Your task to perform on an android device: Search for sushi restaurants on Maps Image 0: 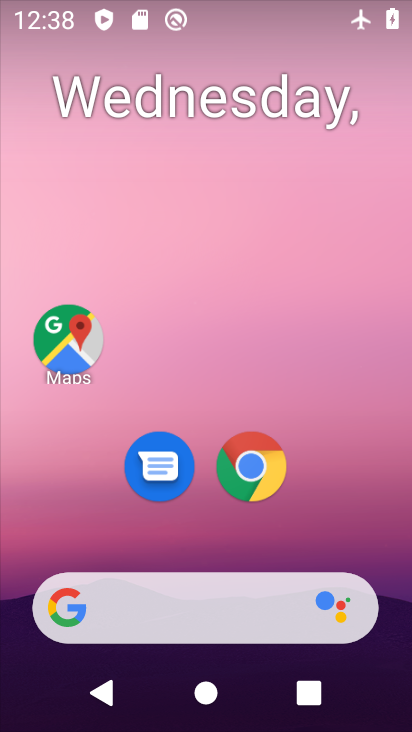
Step 0: click (61, 350)
Your task to perform on an android device: Search for sushi restaurants on Maps Image 1: 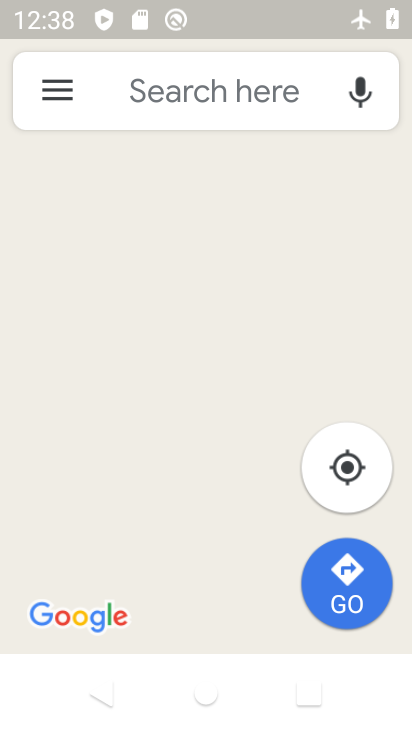
Step 1: click (209, 80)
Your task to perform on an android device: Search for sushi restaurants on Maps Image 2: 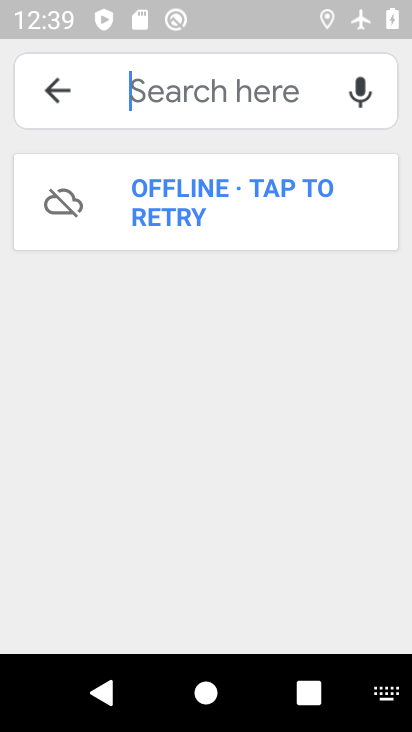
Step 2: press home button
Your task to perform on an android device: Search for sushi restaurants on Maps Image 3: 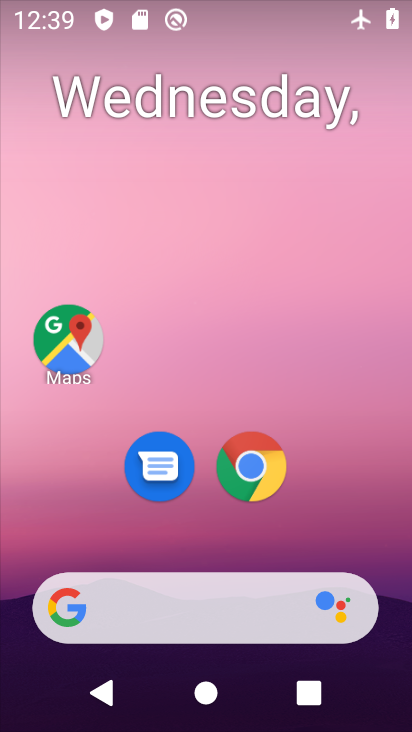
Step 3: drag from (257, 11) to (249, 401)
Your task to perform on an android device: Search for sushi restaurants on Maps Image 4: 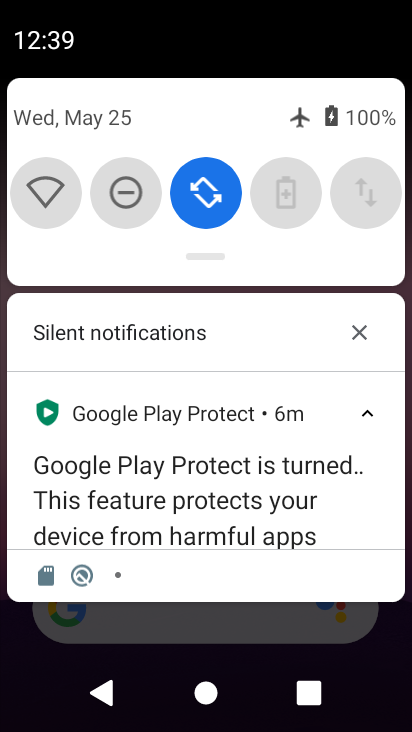
Step 4: drag from (358, 200) to (41, 205)
Your task to perform on an android device: Search for sushi restaurants on Maps Image 5: 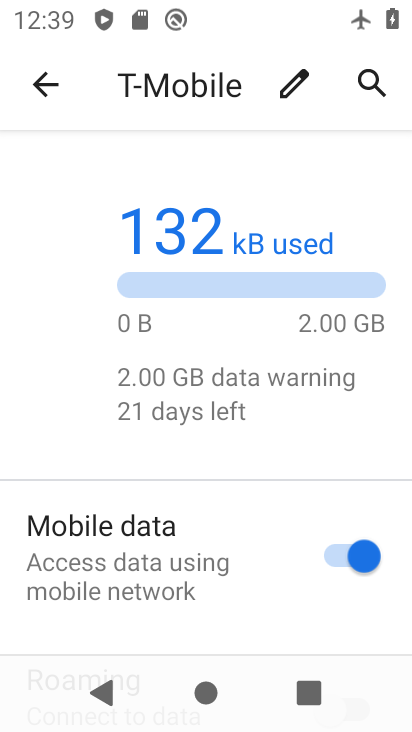
Step 5: press back button
Your task to perform on an android device: Search for sushi restaurants on Maps Image 6: 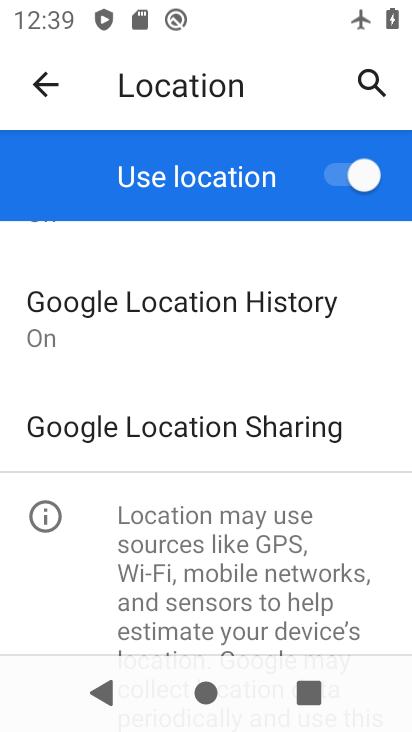
Step 6: press home button
Your task to perform on an android device: Search for sushi restaurants on Maps Image 7: 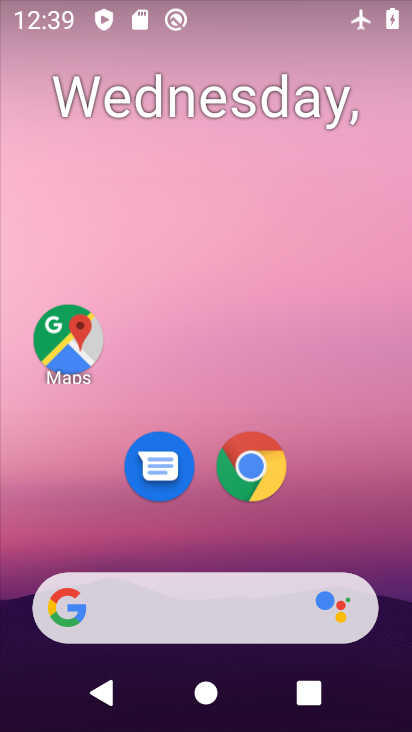
Step 7: drag from (267, 9) to (206, 685)
Your task to perform on an android device: Search for sushi restaurants on Maps Image 8: 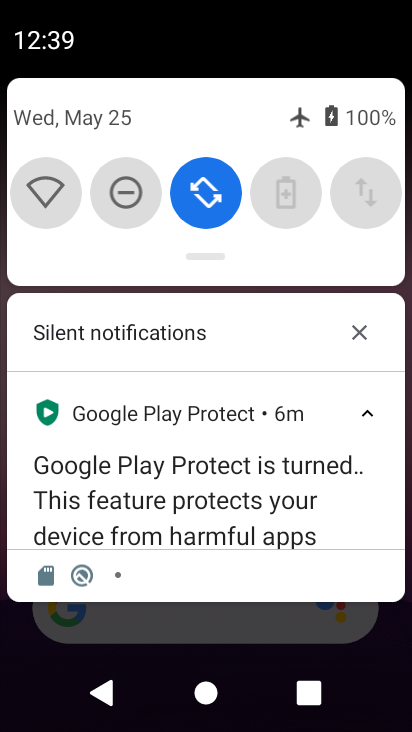
Step 8: drag from (334, 194) to (31, 211)
Your task to perform on an android device: Search for sushi restaurants on Maps Image 9: 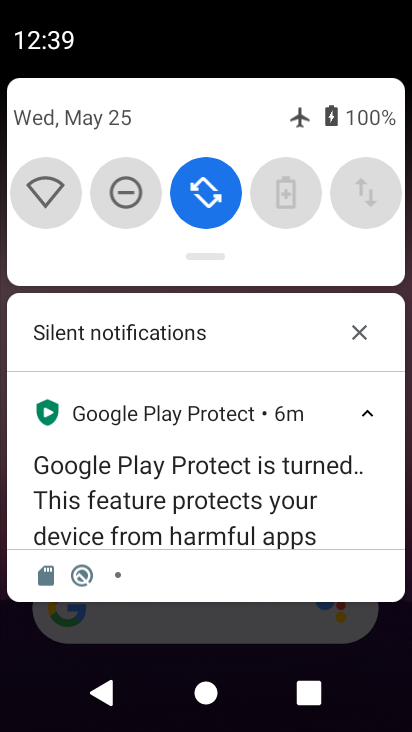
Step 9: drag from (191, 241) to (181, 729)
Your task to perform on an android device: Search for sushi restaurants on Maps Image 10: 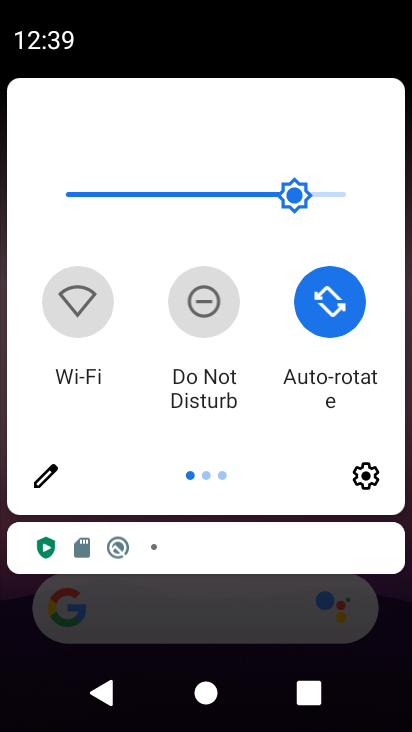
Step 10: drag from (347, 409) to (5, 156)
Your task to perform on an android device: Search for sushi restaurants on Maps Image 11: 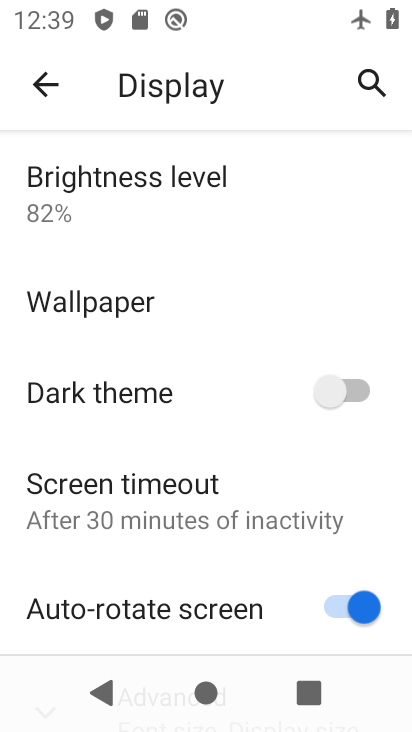
Step 11: press back button
Your task to perform on an android device: Search for sushi restaurants on Maps Image 12: 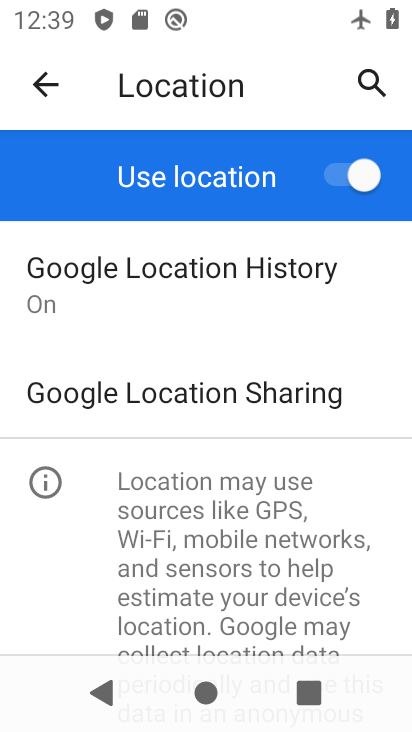
Step 12: press home button
Your task to perform on an android device: Search for sushi restaurants on Maps Image 13: 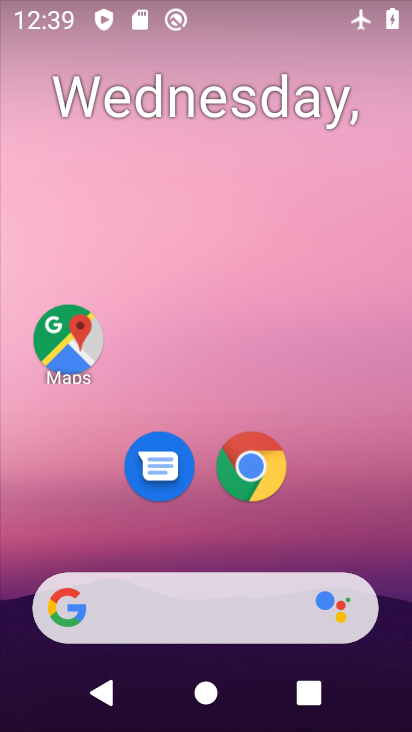
Step 13: drag from (256, 4) to (230, 568)
Your task to perform on an android device: Search for sushi restaurants on Maps Image 14: 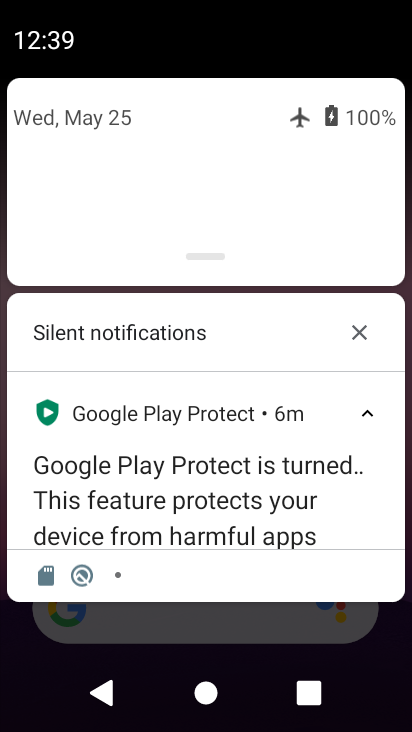
Step 14: drag from (292, 255) to (242, 666)
Your task to perform on an android device: Search for sushi restaurants on Maps Image 15: 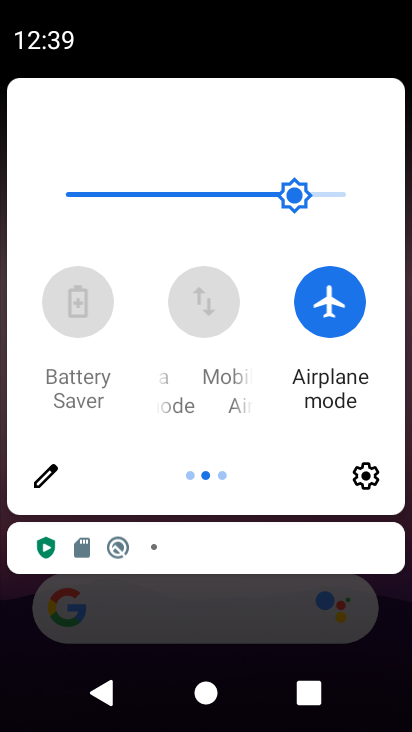
Step 15: drag from (384, 417) to (2, 353)
Your task to perform on an android device: Search for sushi restaurants on Maps Image 16: 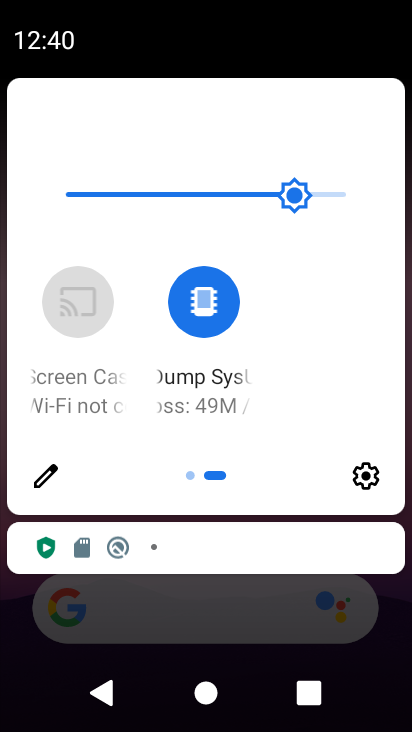
Step 16: drag from (37, 393) to (372, 411)
Your task to perform on an android device: Search for sushi restaurants on Maps Image 17: 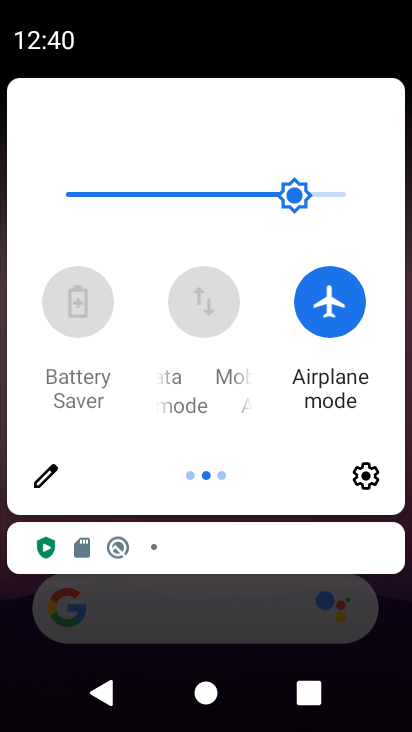
Step 17: click (327, 310)
Your task to perform on an android device: Search for sushi restaurants on Maps Image 18: 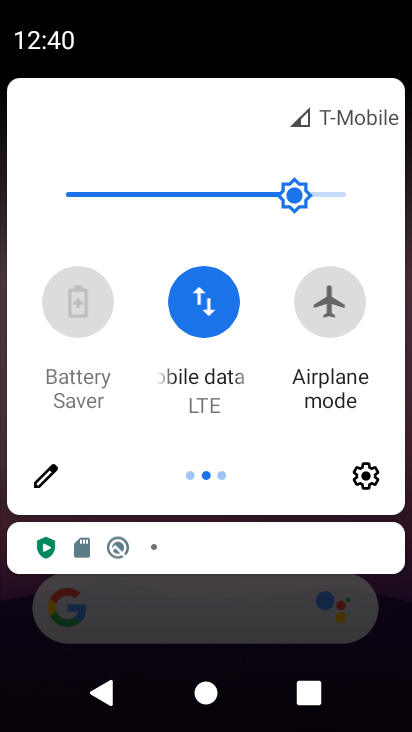
Step 18: drag from (199, 481) to (210, 182)
Your task to perform on an android device: Search for sushi restaurants on Maps Image 19: 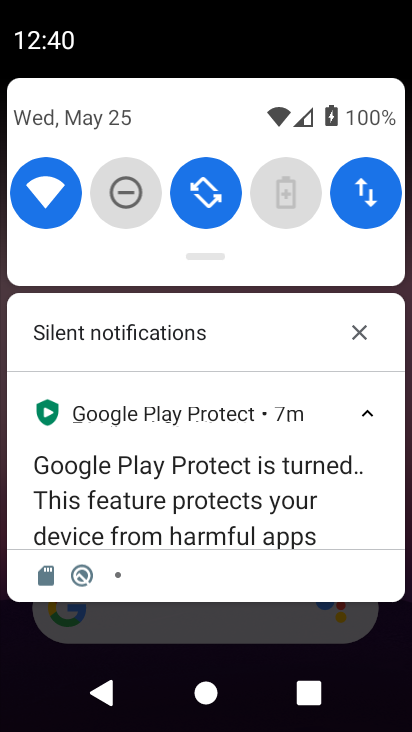
Step 19: drag from (261, 708) to (226, 94)
Your task to perform on an android device: Search for sushi restaurants on Maps Image 20: 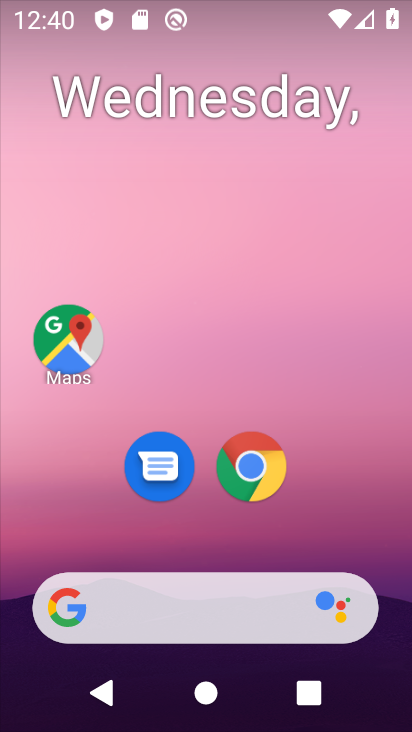
Step 20: click (63, 350)
Your task to perform on an android device: Search for sushi restaurants on Maps Image 21: 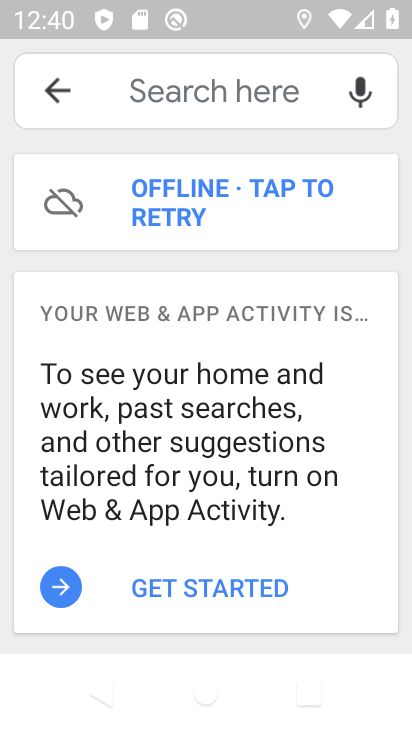
Step 21: click (170, 74)
Your task to perform on an android device: Search for sushi restaurants on Maps Image 22: 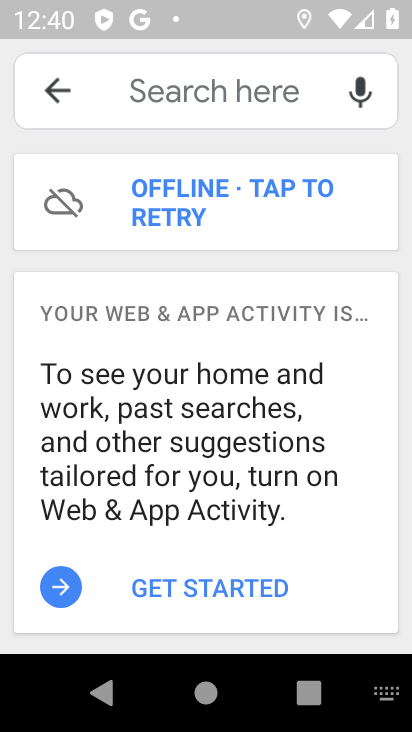
Step 22: click (168, 212)
Your task to perform on an android device: Search for sushi restaurants on Maps Image 23: 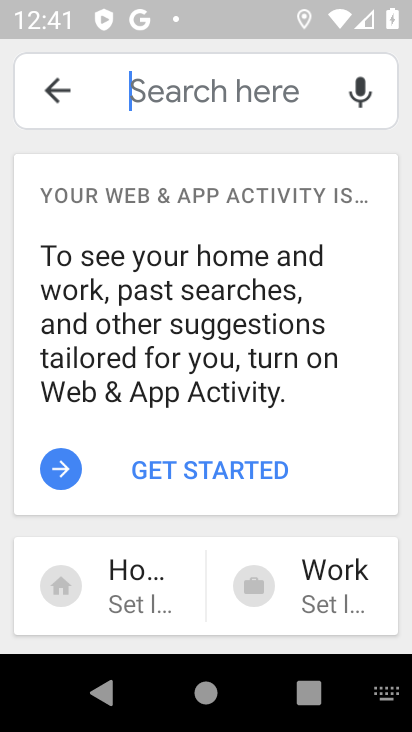
Step 23: type "sushi restaurant"
Your task to perform on an android device: Search for sushi restaurants on Maps Image 24: 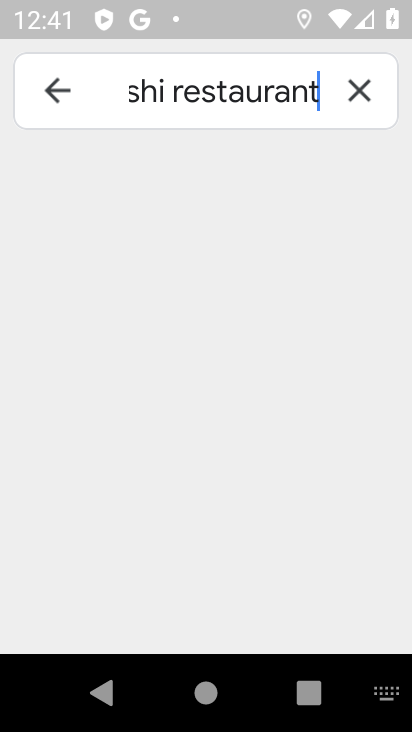
Step 24: click (307, 90)
Your task to perform on an android device: Search for sushi restaurants on Maps Image 25: 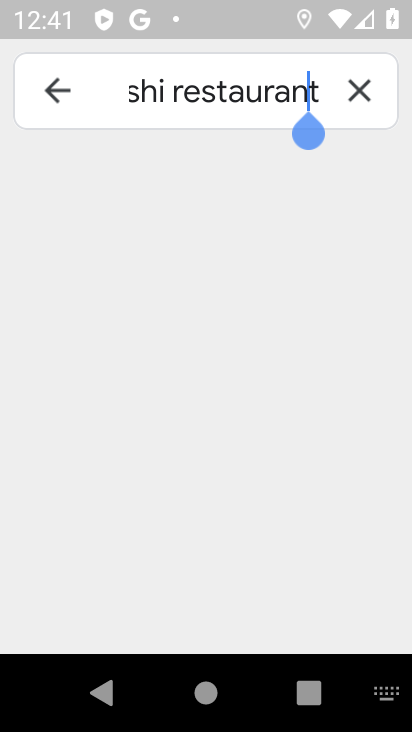
Step 25: task complete